Your task to perform on an android device: Open calendar and show me the third week of next month Image 0: 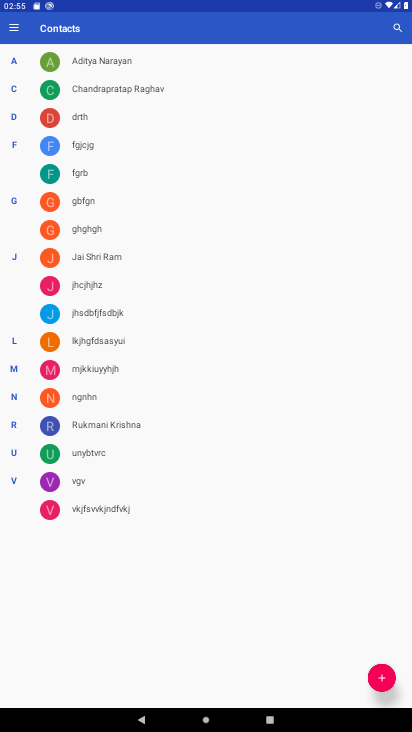
Step 0: press home button
Your task to perform on an android device: Open calendar and show me the third week of next month Image 1: 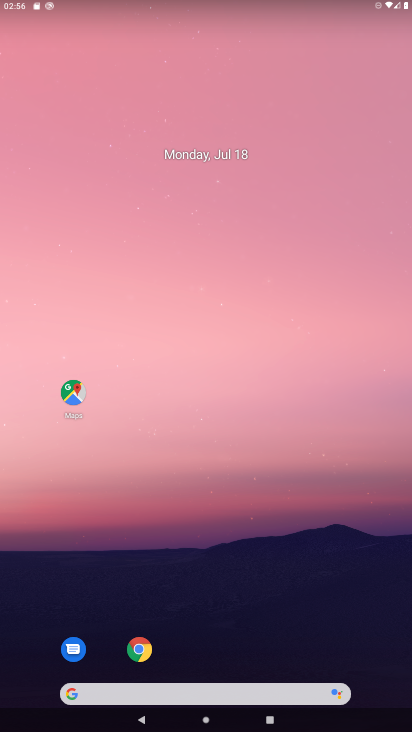
Step 1: drag from (150, 529) to (131, 123)
Your task to perform on an android device: Open calendar and show me the third week of next month Image 2: 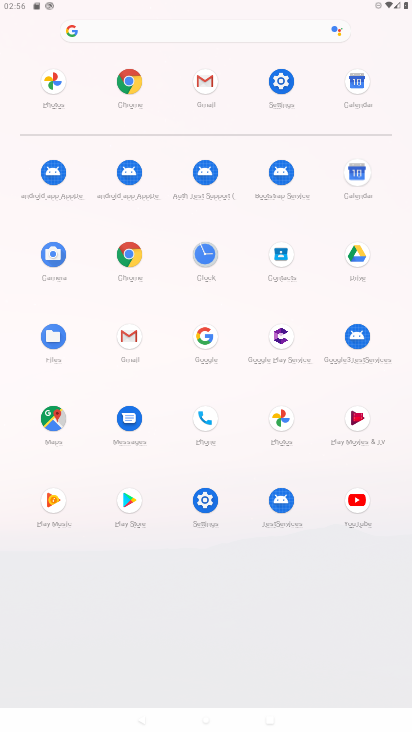
Step 2: click (362, 177)
Your task to perform on an android device: Open calendar and show me the third week of next month Image 3: 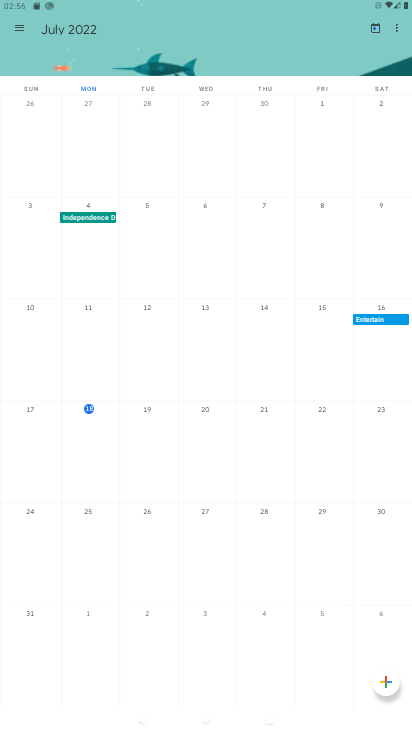
Step 3: click (58, 25)
Your task to perform on an android device: Open calendar and show me the third week of next month Image 4: 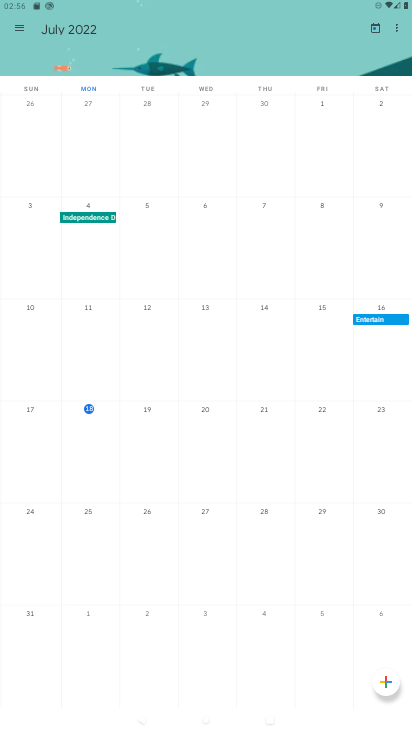
Step 4: click (58, 25)
Your task to perform on an android device: Open calendar and show me the third week of next month Image 5: 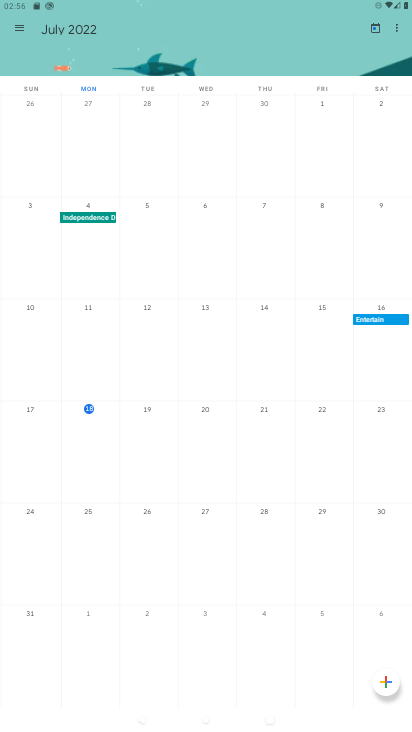
Step 5: click (61, 22)
Your task to perform on an android device: Open calendar and show me the third week of next month Image 6: 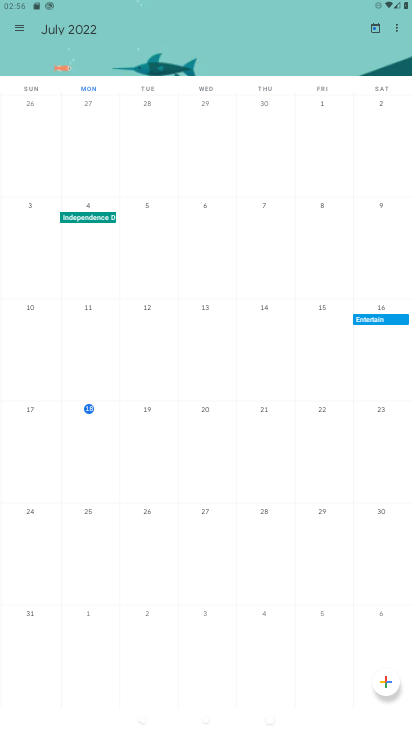
Step 6: click (61, 22)
Your task to perform on an android device: Open calendar and show me the third week of next month Image 7: 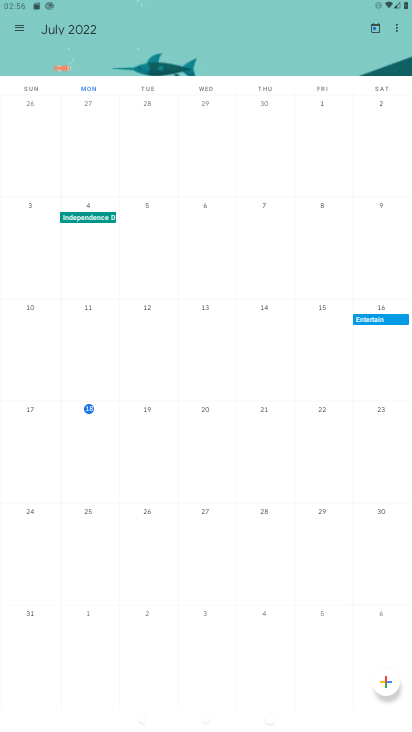
Step 7: click (61, 22)
Your task to perform on an android device: Open calendar and show me the third week of next month Image 8: 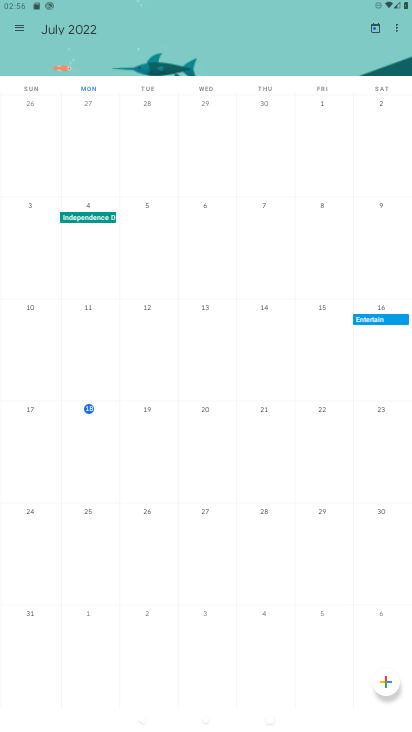
Step 8: click (61, 22)
Your task to perform on an android device: Open calendar and show me the third week of next month Image 9: 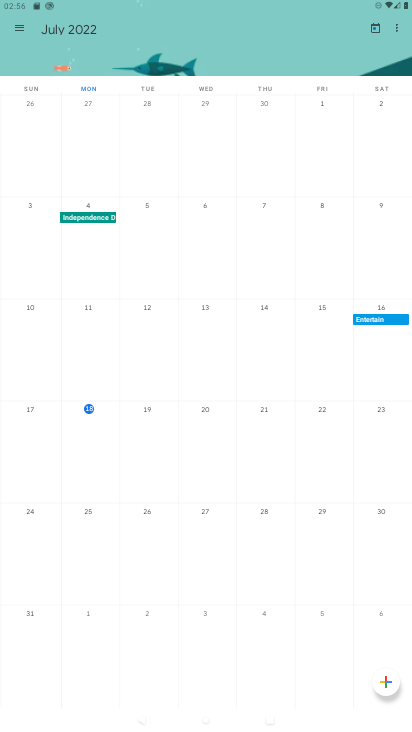
Step 9: click (65, 33)
Your task to perform on an android device: Open calendar and show me the third week of next month Image 10: 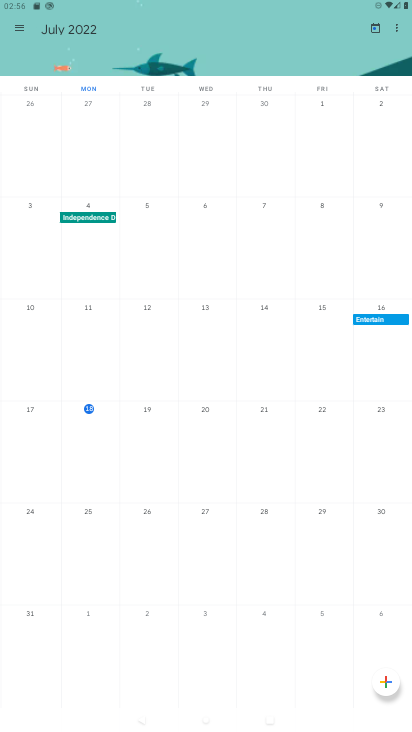
Step 10: click (65, 33)
Your task to perform on an android device: Open calendar and show me the third week of next month Image 11: 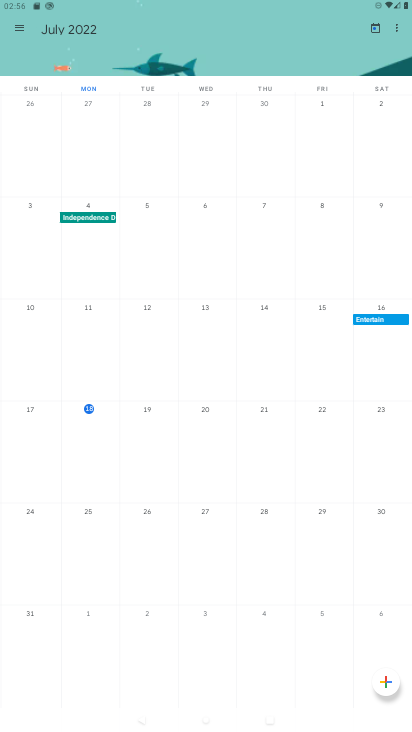
Step 11: click (65, 33)
Your task to perform on an android device: Open calendar and show me the third week of next month Image 12: 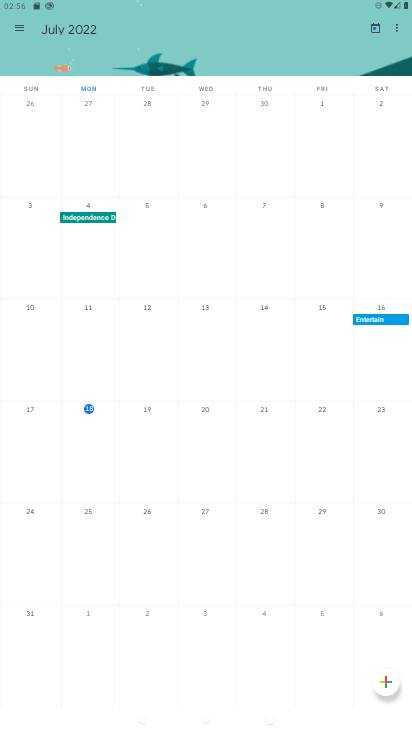
Step 12: click (65, 33)
Your task to perform on an android device: Open calendar and show me the third week of next month Image 13: 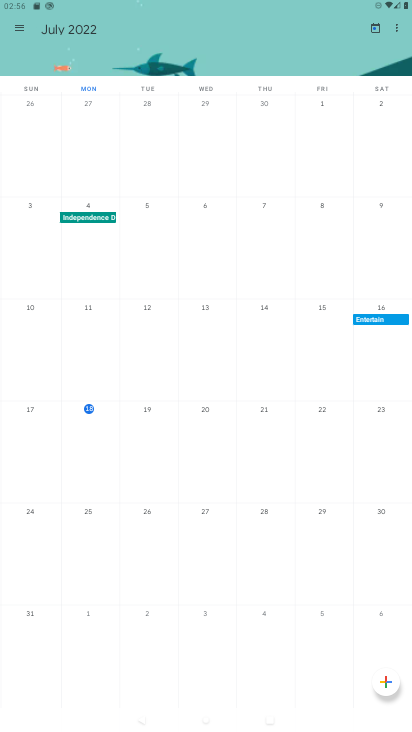
Step 13: click (70, 32)
Your task to perform on an android device: Open calendar and show me the third week of next month Image 14: 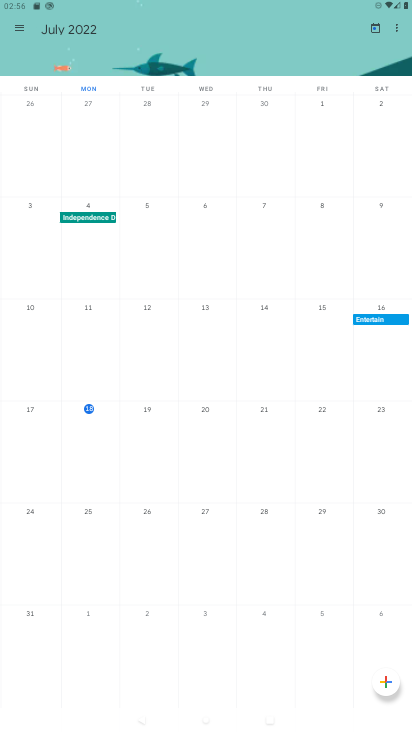
Step 14: click (44, 28)
Your task to perform on an android device: Open calendar and show me the third week of next month Image 15: 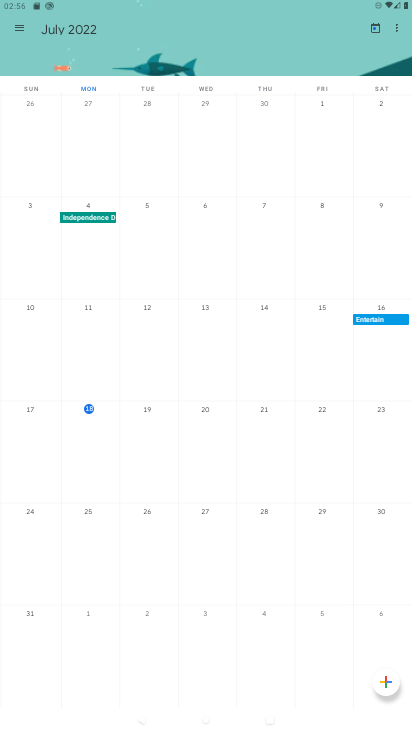
Step 15: drag from (202, 594) to (230, 19)
Your task to perform on an android device: Open calendar and show me the third week of next month Image 16: 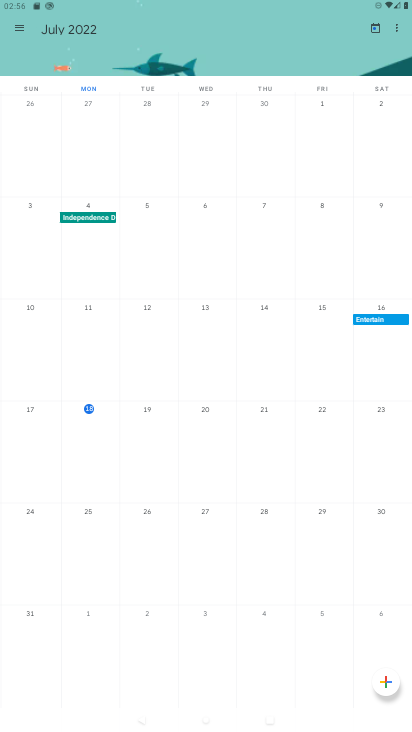
Step 16: drag from (386, 475) to (37, 493)
Your task to perform on an android device: Open calendar and show me the third week of next month Image 17: 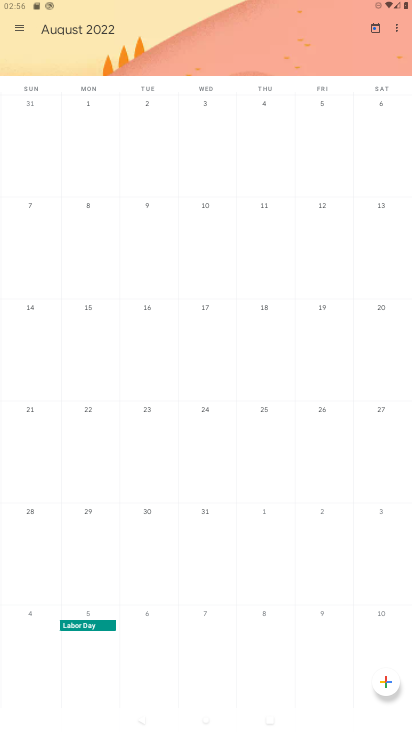
Step 17: click (32, 310)
Your task to perform on an android device: Open calendar and show me the third week of next month Image 18: 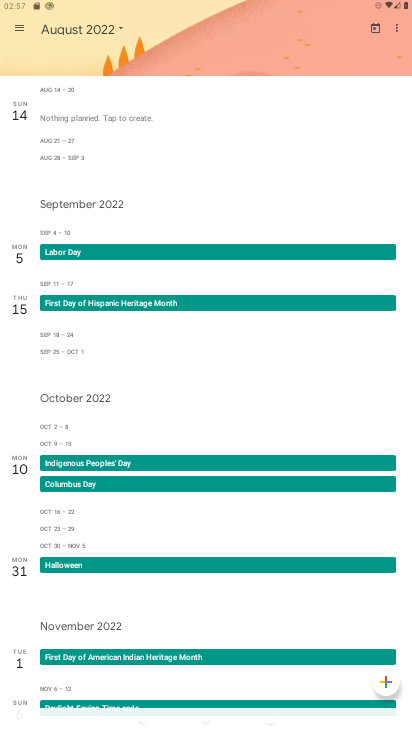
Step 18: task complete